Your task to perform on an android device: Open location settings Image 0: 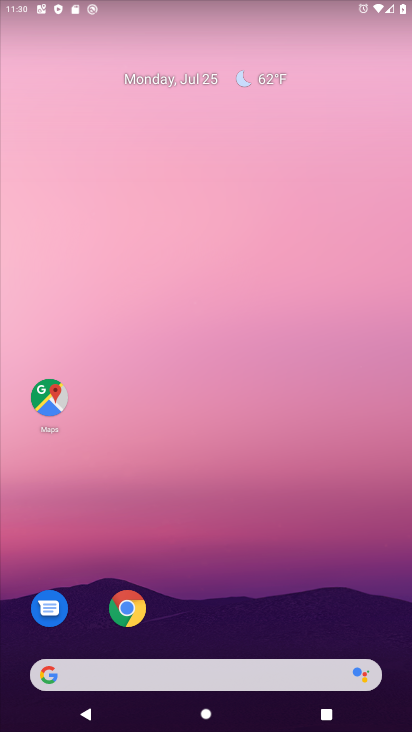
Step 0: drag from (206, 637) to (137, 3)
Your task to perform on an android device: Open location settings Image 1: 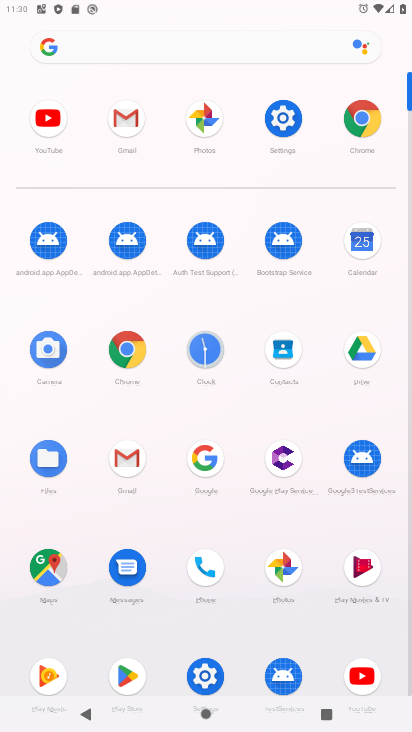
Step 1: click (199, 685)
Your task to perform on an android device: Open location settings Image 2: 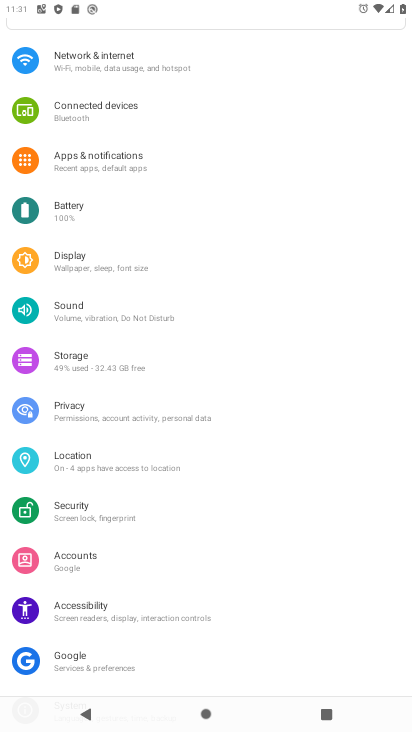
Step 2: click (105, 466)
Your task to perform on an android device: Open location settings Image 3: 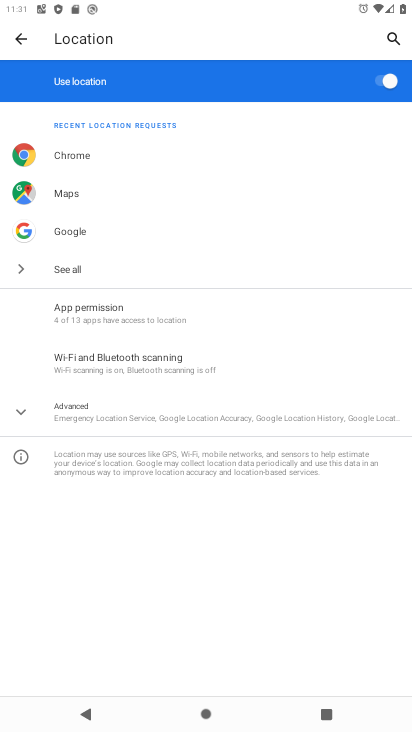
Step 3: task complete